Your task to perform on an android device: Open settings Image 0: 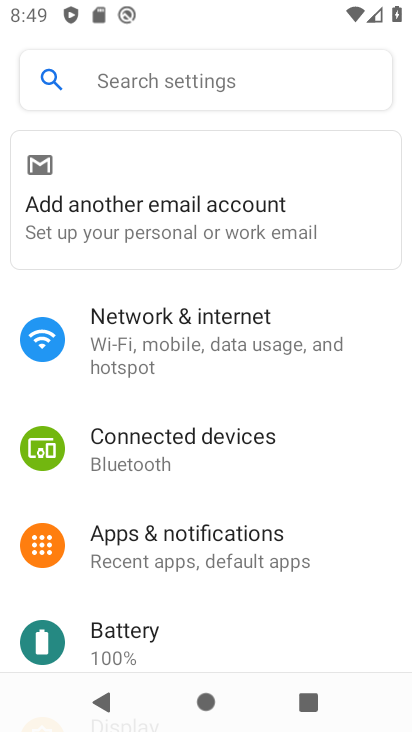
Step 0: press home button
Your task to perform on an android device: Open settings Image 1: 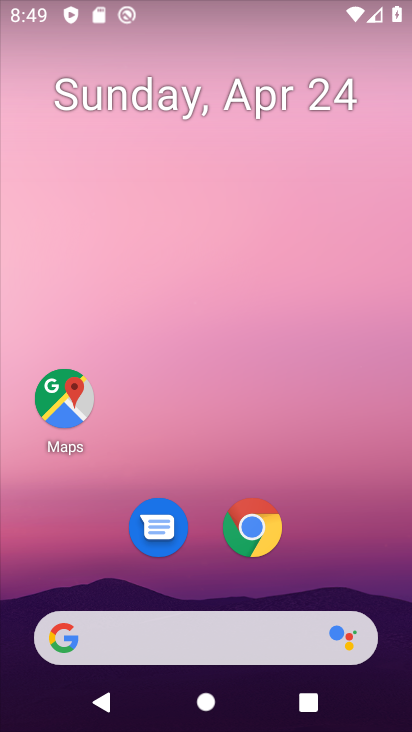
Step 1: drag from (221, 415) to (213, 2)
Your task to perform on an android device: Open settings Image 2: 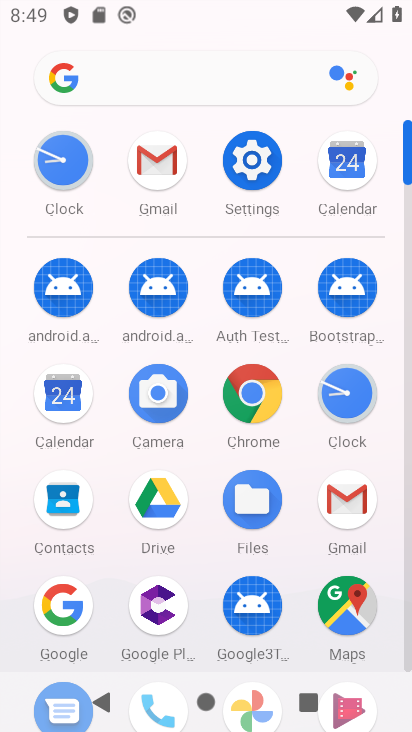
Step 2: click (263, 156)
Your task to perform on an android device: Open settings Image 3: 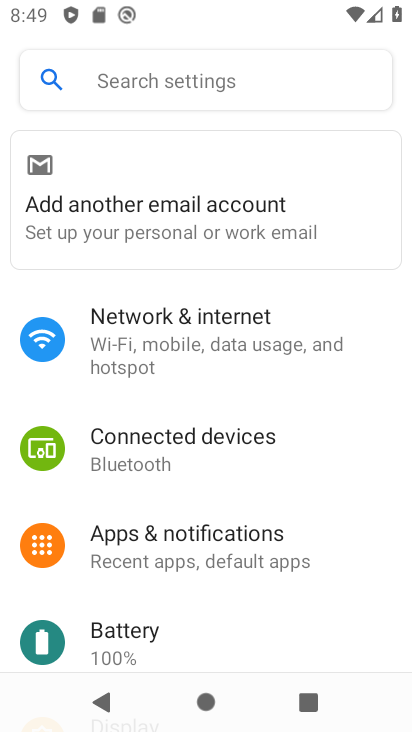
Step 3: task complete